Your task to perform on an android device: Open Chrome and go to settings Image 0: 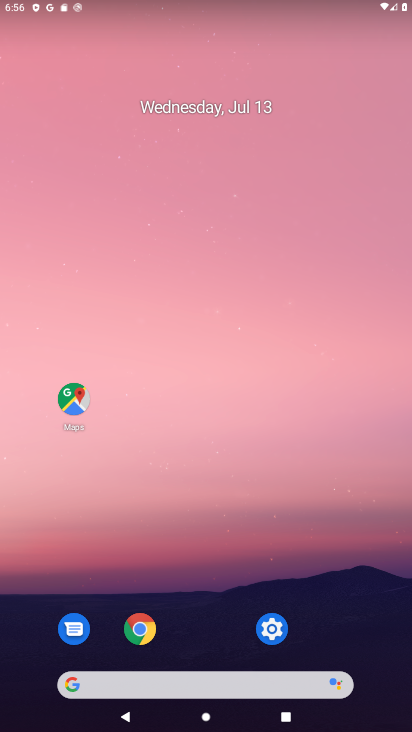
Step 0: click (145, 625)
Your task to perform on an android device: Open Chrome and go to settings Image 1: 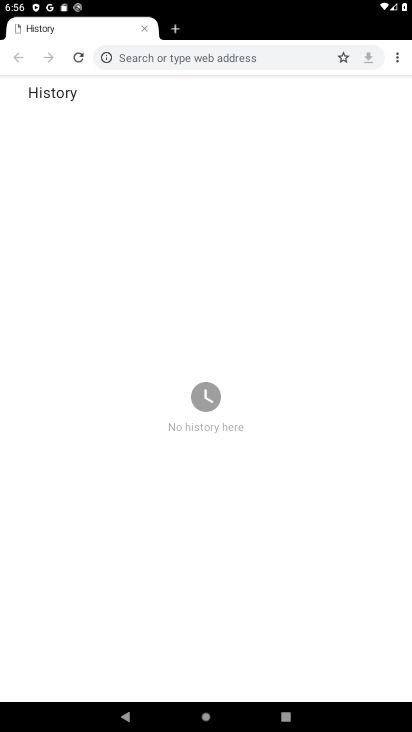
Step 1: click (395, 61)
Your task to perform on an android device: Open Chrome and go to settings Image 2: 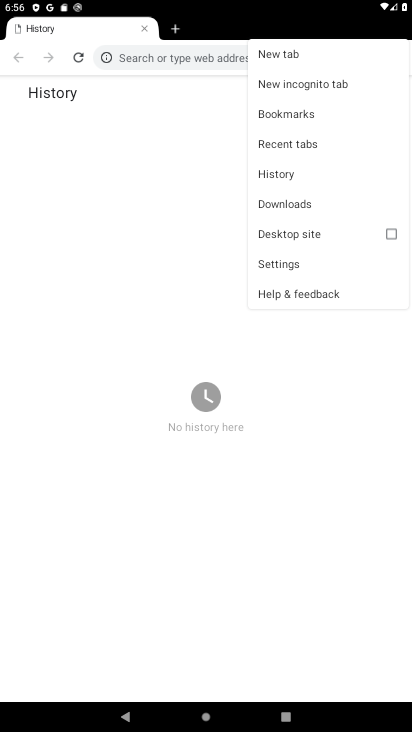
Step 2: click (281, 262)
Your task to perform on an android device: Open Chrome and go to settings Image 3: 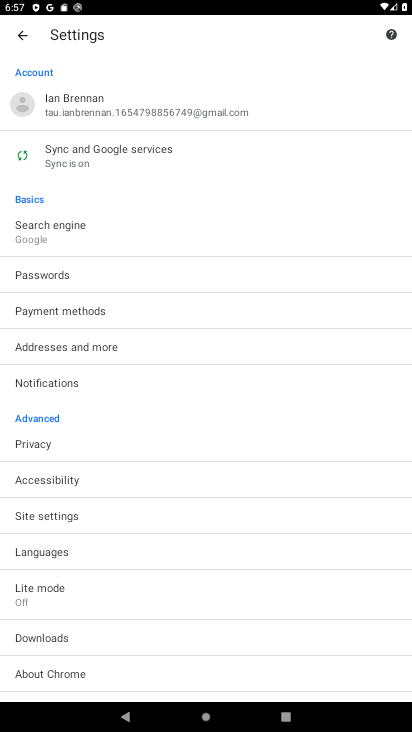
Step 3: task complete